Your task to perform on an android device: Search for Mexican restaurants on Maps Image 0: 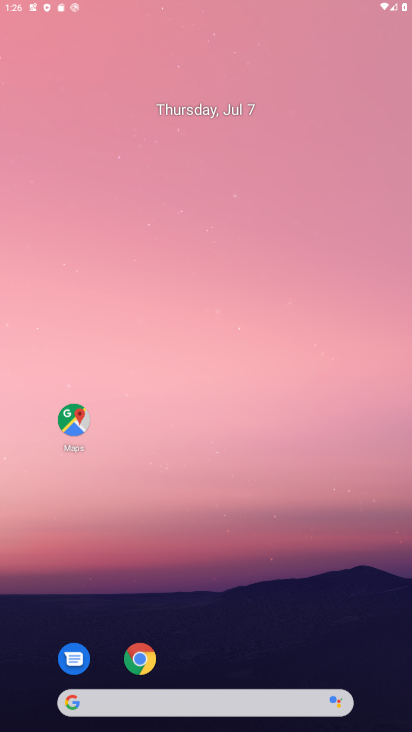
Step 0: press home button
Your task to perform on an android device: Search for Mexican restaurants on Maps Image 1: 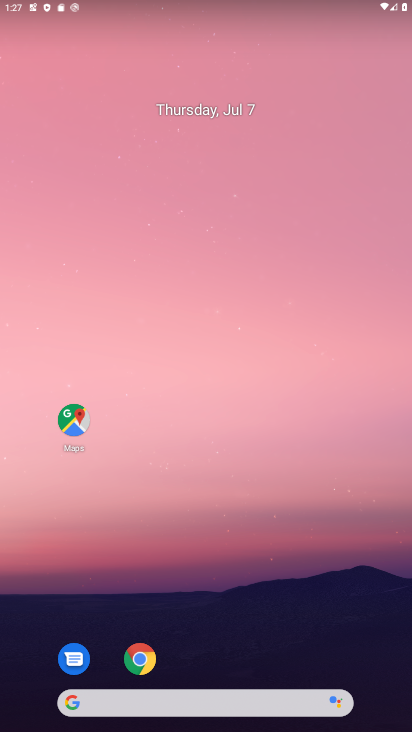
Step 1: click (75, 417)
Your task to perform on an android device: Search for Mexican restaurants on Maps Image 2: 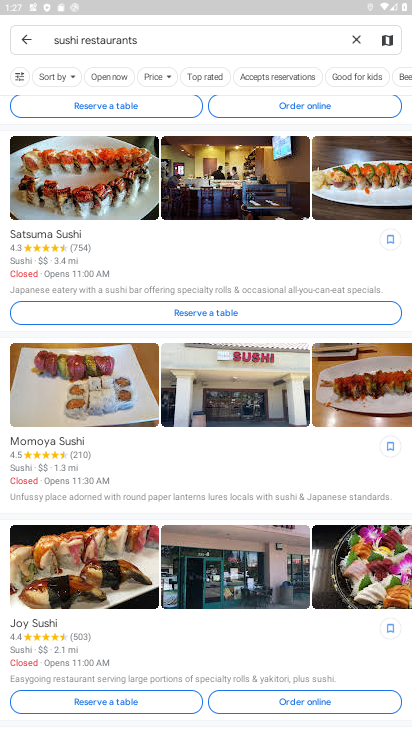
Step 2: click (357, 36)
Your task to perform on an android device: Search for Mexican restaurants on Maps Image 3: 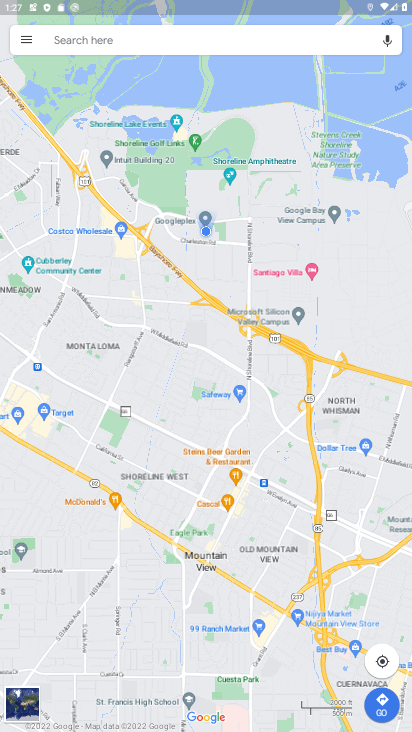
Step 3: click (115, 41)
Your task to perform on an android device: Search for Mexican restaurants on Maps Image 4: 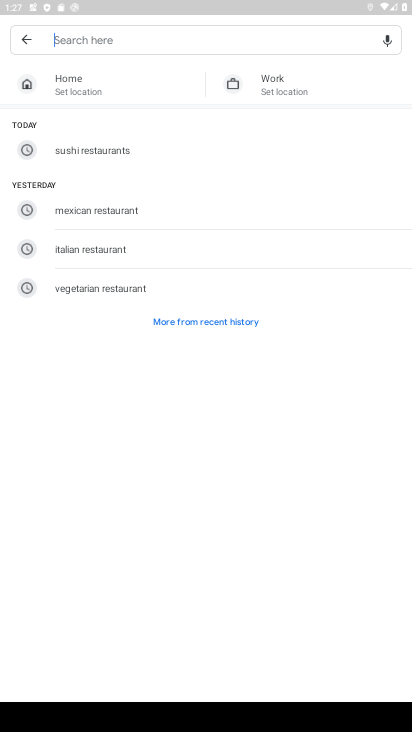
Step 4: click (73, 214)
Your task to perform on an android device: Search for Mexican restaurants on Maps Image 5: 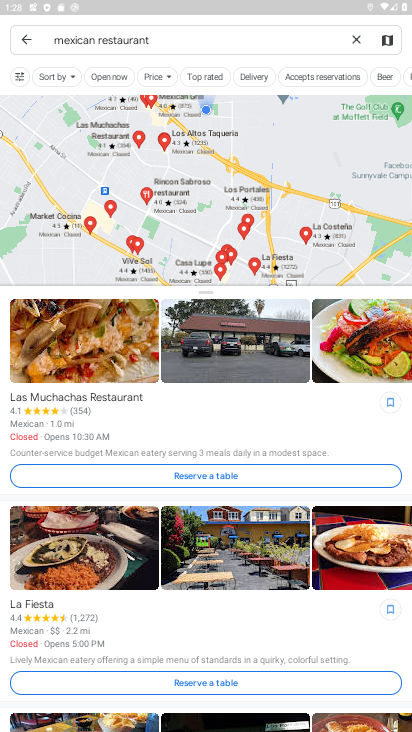
Step 5: task complete